Your task to perform on an android device: Open Reddit.com Image 0: 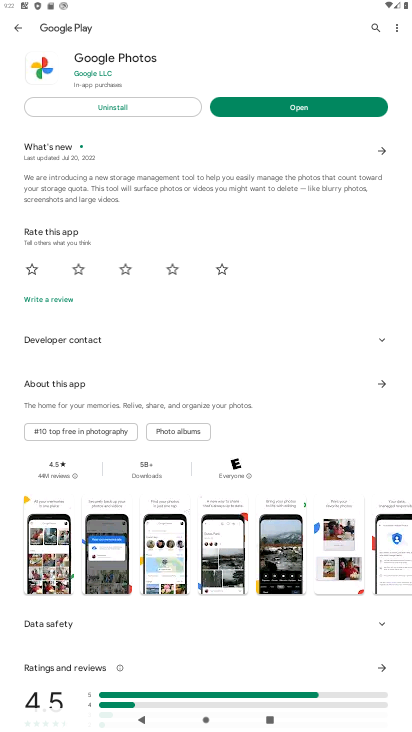
Step 0: task complete